Your task to perform on an android device: Open Wikipedia Image 0: 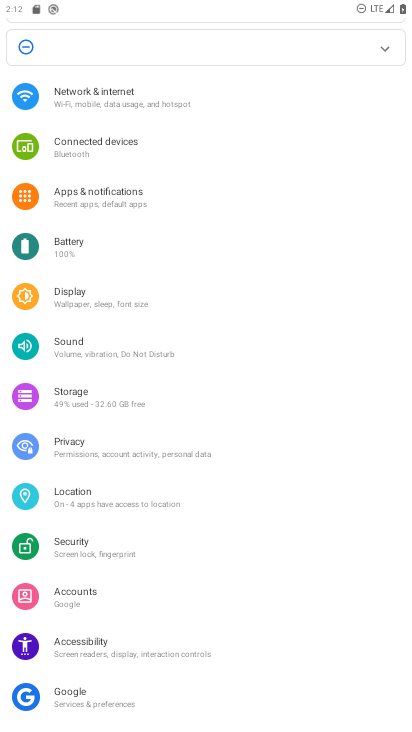
Step 0: press home button
Your task to perform on an android device: Open Wikipedia Image 1: 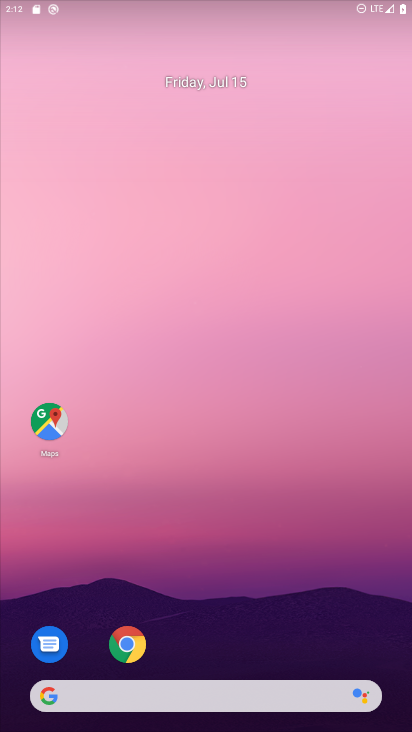
Step 1: drag from (30, 581) to (201, 149)
Your task to perform on an android device: Open Wikipedia Image 2: 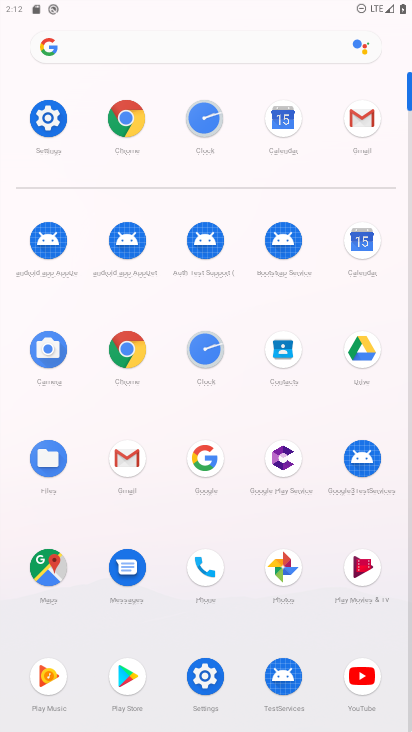
Step 2: click (132, 126)
Your task to perform on an android device: Open Wikipedia Image 3: 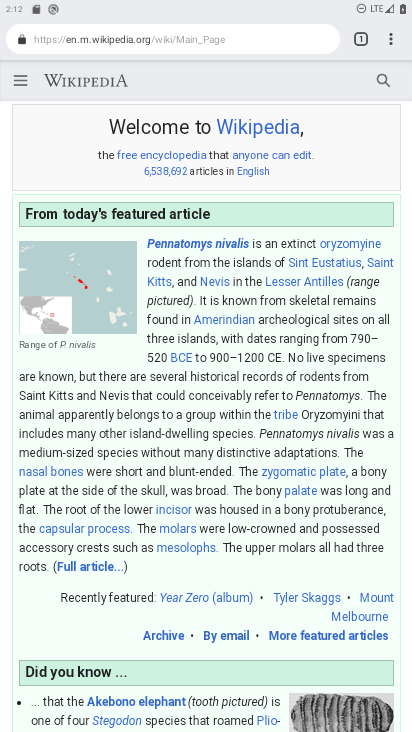
Step 3: task complete